Your task to perform on an android device: Go to ESPN.com Image 0: 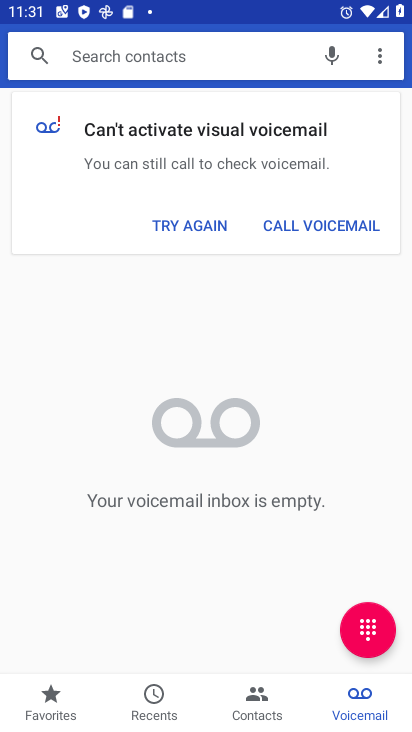
Step 0: drag from (201, 646) to (196, 276)
Your task to perform on an android device: Go to ESPN.com Image 1: 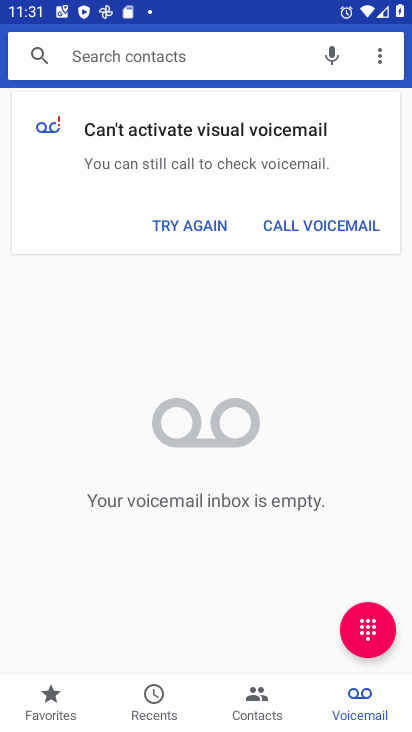
Step 1: press home button
Your task to perform on an android device: Go to ESPN.com Image 2: 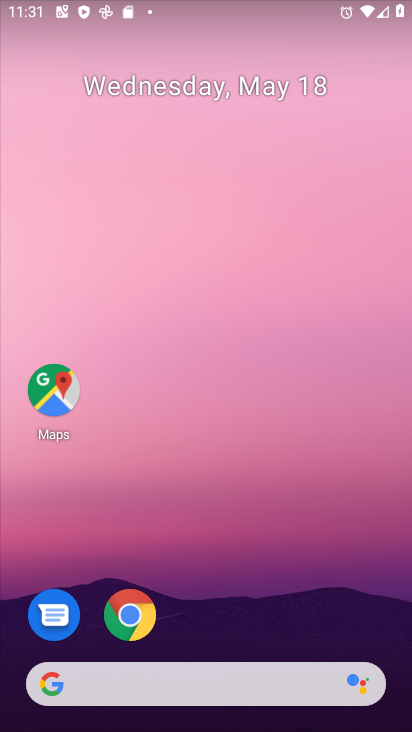
Step 2: click (141, 609)
Your task to perform on an android device: Go to ESPN.com Image 3: 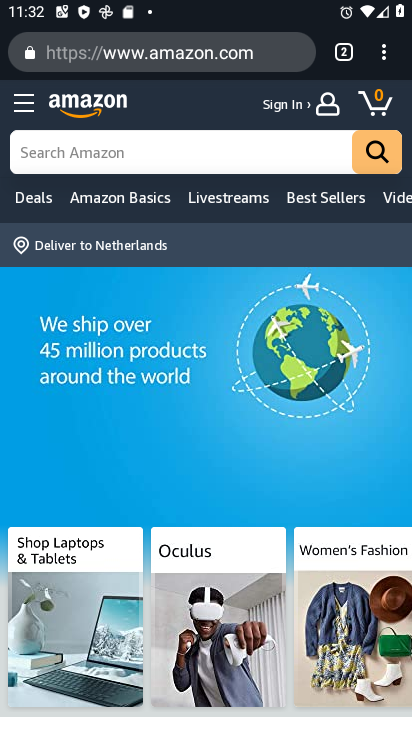
Step 3: click (345, 53)
Your task to perform on an android device: Go to ESPN.com Image 4: 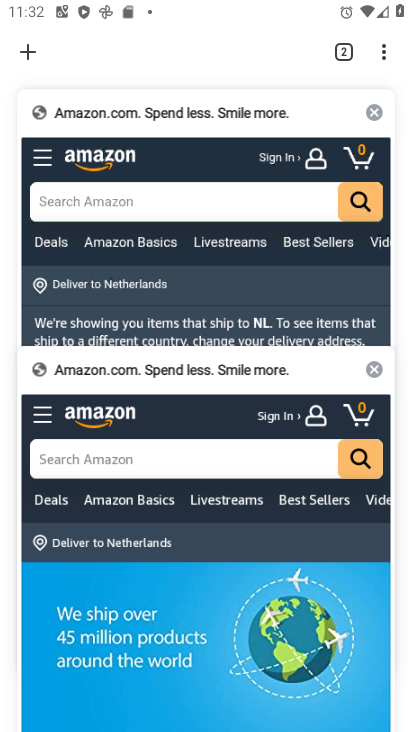
Step 4: click (26, 49)
Your task to perform on an android device: Go to ESPN.com Image 5: 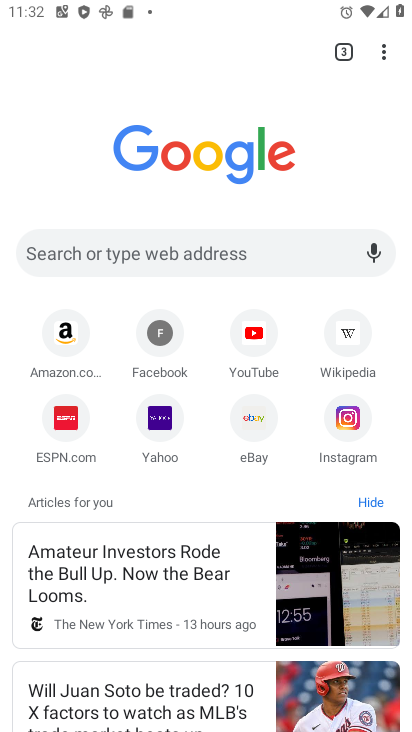
Step 5: click (59, 417)
Your task to perform on an android device: Go to ESPN.com Image 6: 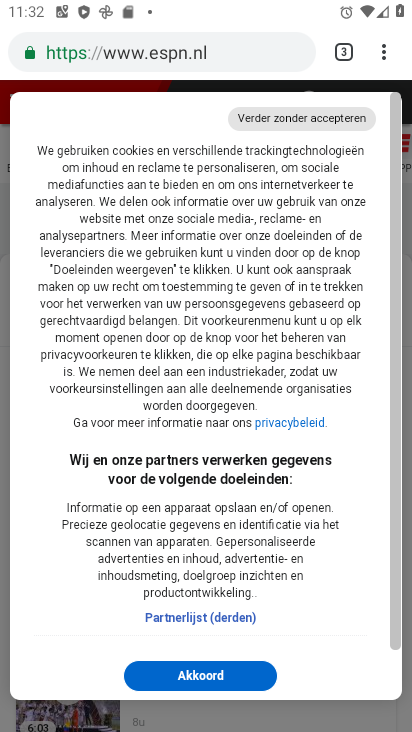
Step 6: task complete